Your task to perform on an android device: Go to battery settings Image 0: 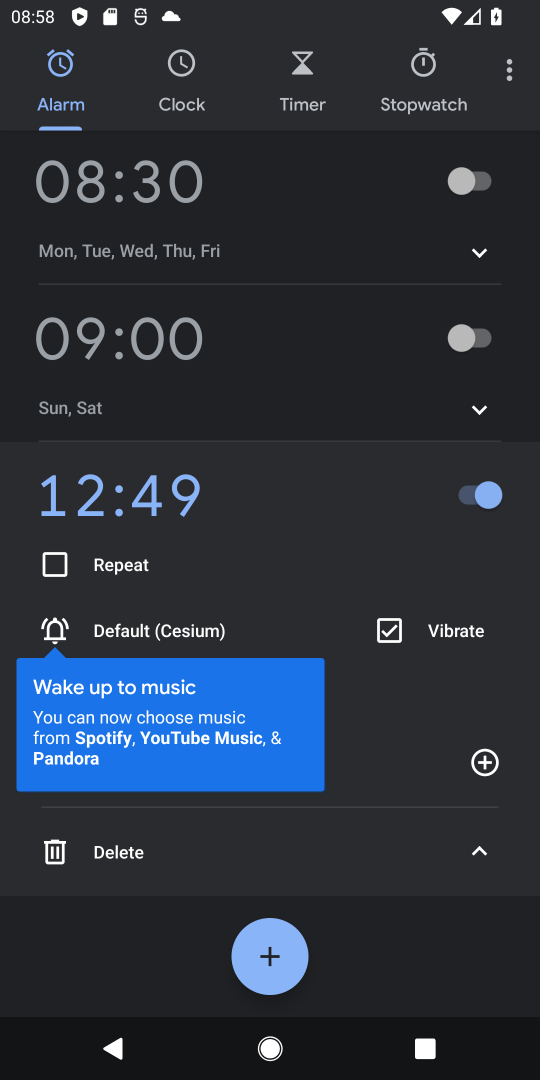
Step 0: press home button
Your task to perform on an android device: Go to battery settings Image 1: 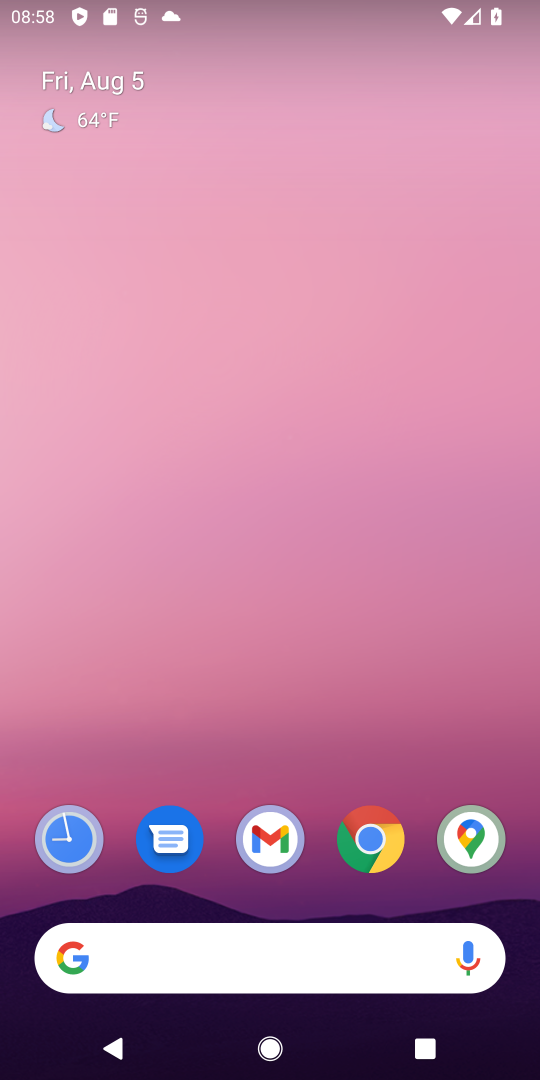
Step 1: drag from (314, 913) to (326, 336)
Your task to perform on an android device: Go to battery settings Image 2: 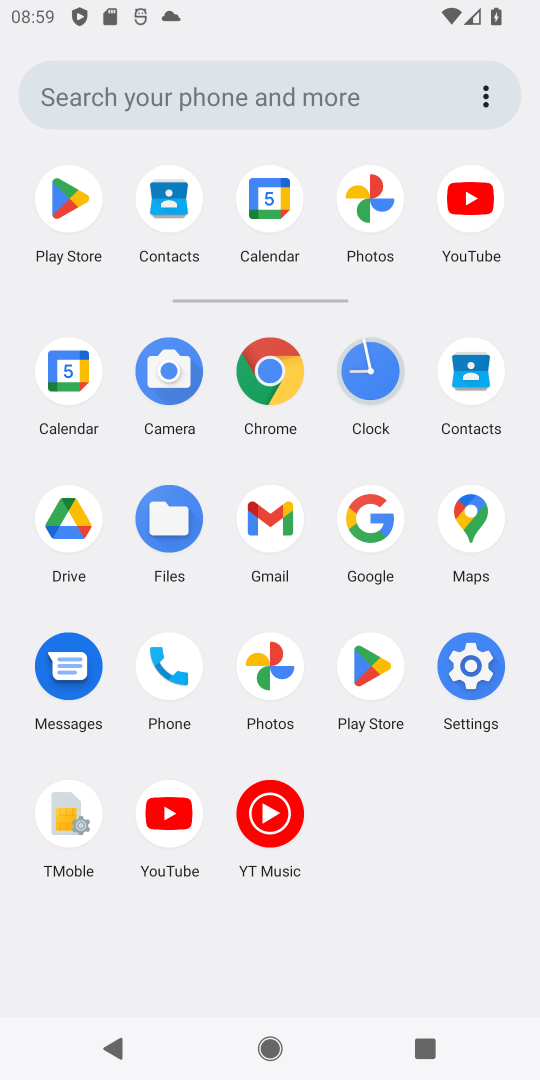
Step 2: click (460, 674)
Your task to perform on an android device: Go to battery settings Image 3: 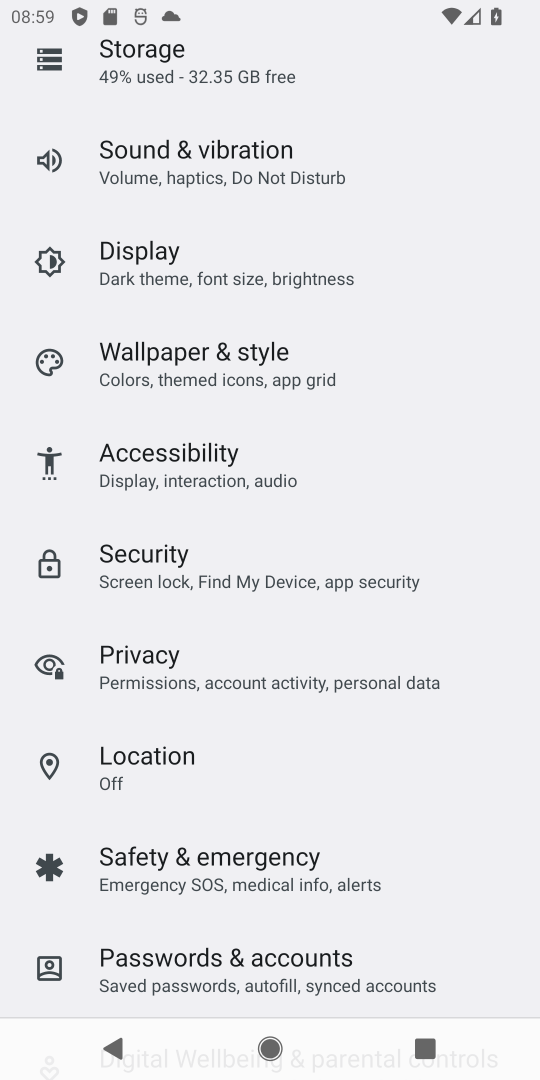
Step 3: drag from (194, 308) to (125, 849)
Your task to perform on an android device: Go to battery settings Image 4: 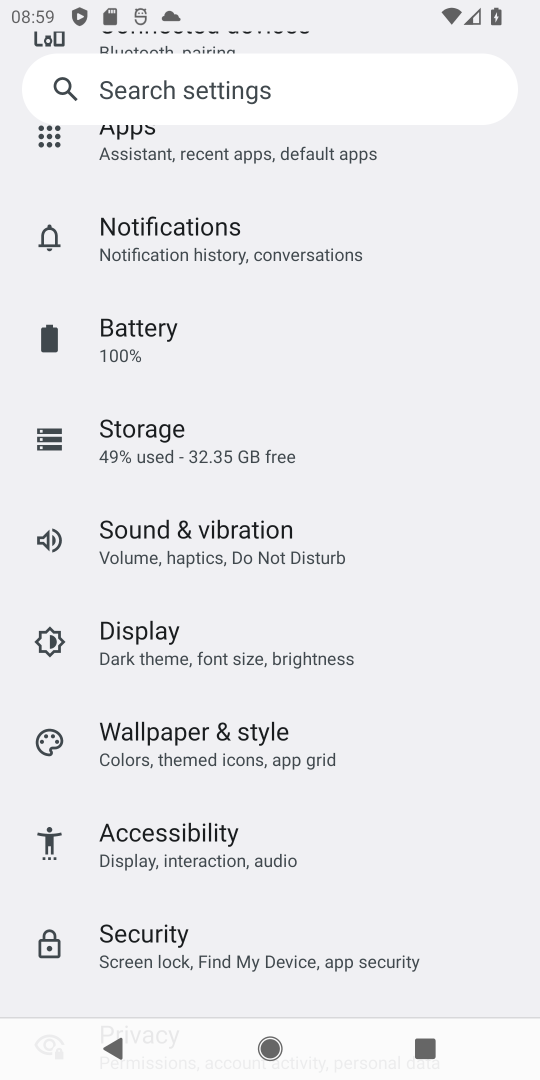
Step 4: click (131, 339)
Your task to perform on an android device: Go to battery settings Image 5: 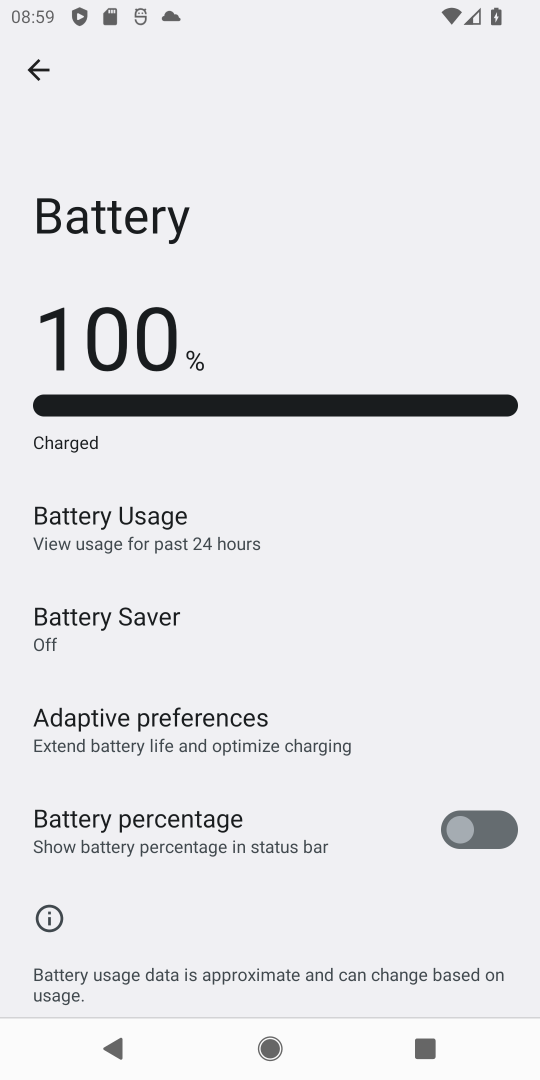
Step 5: task complete